Your task to perform on an android device: open a bookmark in the chrome app Image 0: 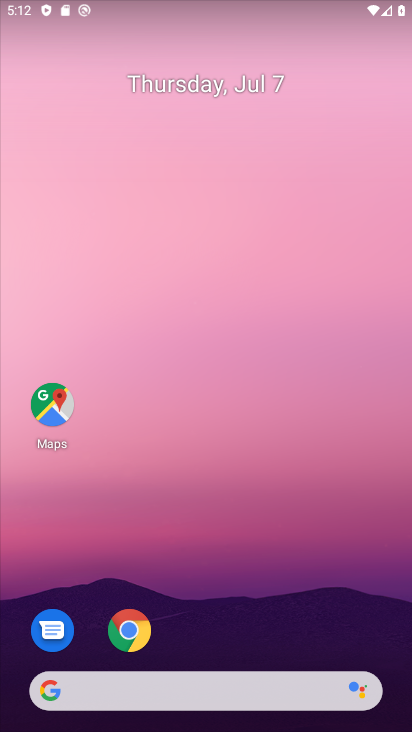
Step 0: drag from (181, 596) to (162, 274)
Your task to perform on an android device: open a bookmark in the chrome app Image 1: 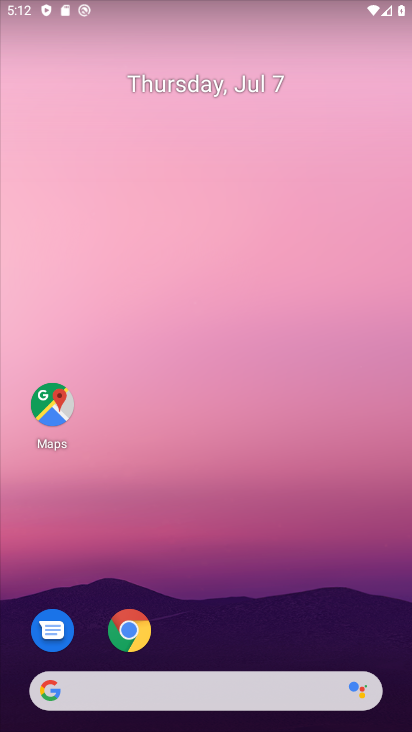
Step 1: drag from (183, 503) to (218, 6)
Your task to perform on an android device: open a bookmark in the chrome app Image 2: 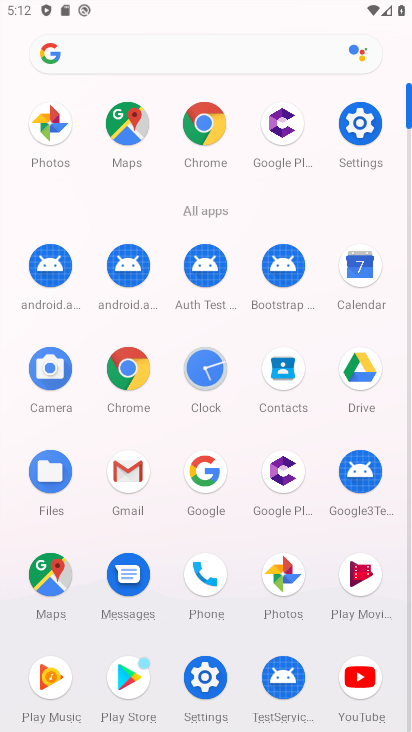
Step 2: click (205, 144)
Your task to perform on an android device: open a bookmark in the chrome app Image 3: 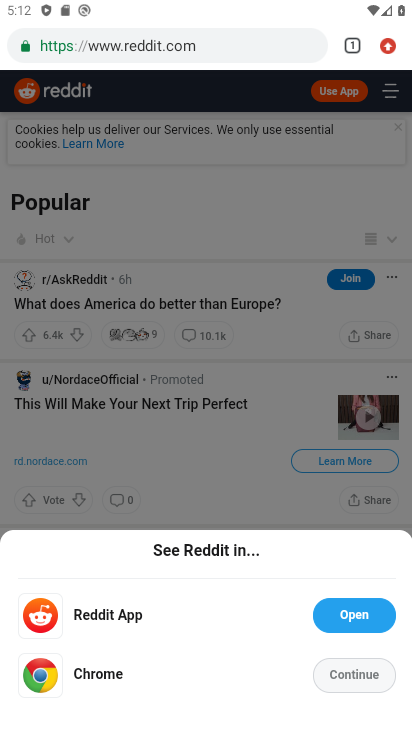
Step 3: click (349, 675)
Your task to perform on an android device: open a bookmark in the chrome app Image 4: 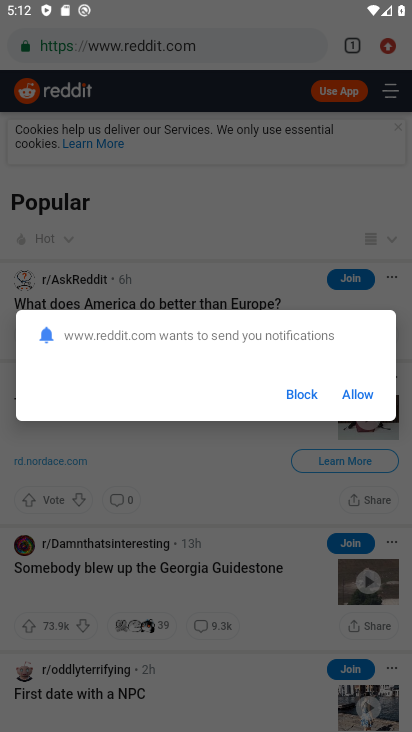
Step 4: click (305, 392)
Your task to perform on an android device: open a bookmark in the chrome app Image 5: 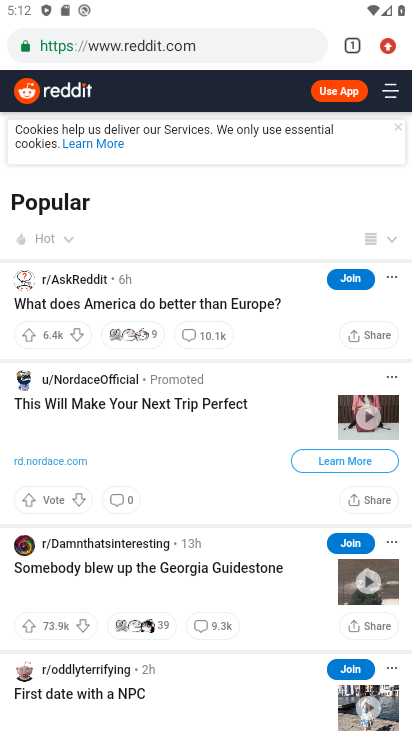
Step 5: click (380, 44)
Your task to perform on an android device: open a bookmark in the chrome app Image 6: 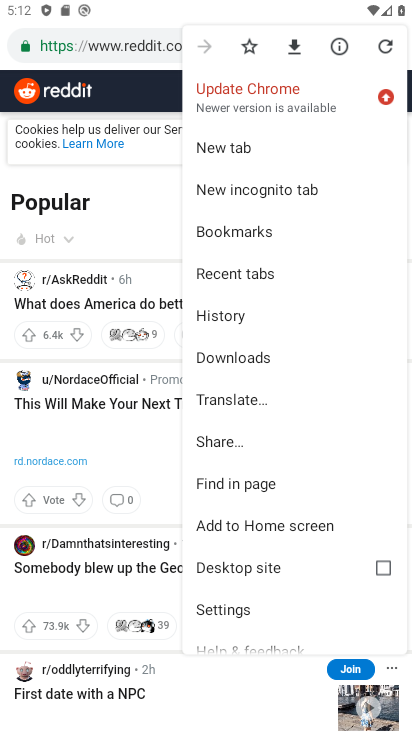
Step 6: click (245, 240)
Your task to perform on an android device: open a bookmark in the chrome app Image 7: 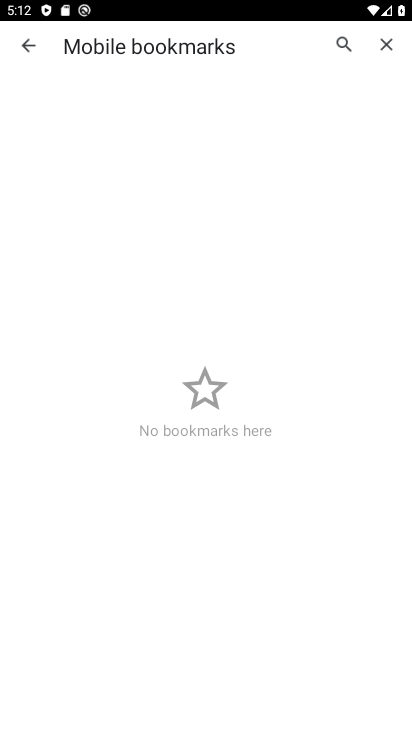
Step 7: task complete